Your task to perform on an android device: Open accessibility settings Image 0: 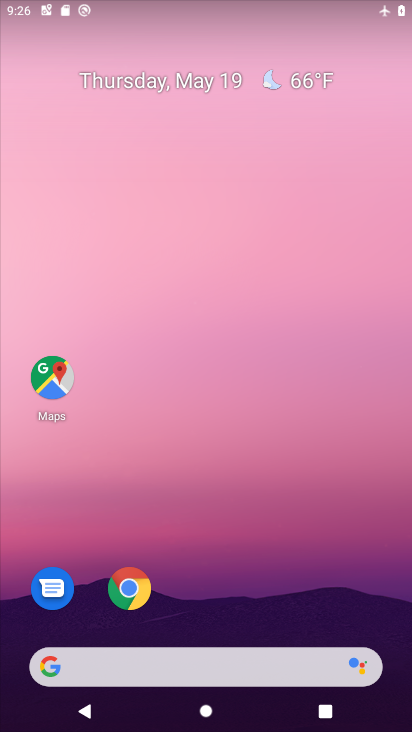
Step 0: drag from (391, 594) to (371, 180)
Your task to perform on an android device: Open accessibility settings Image 1: 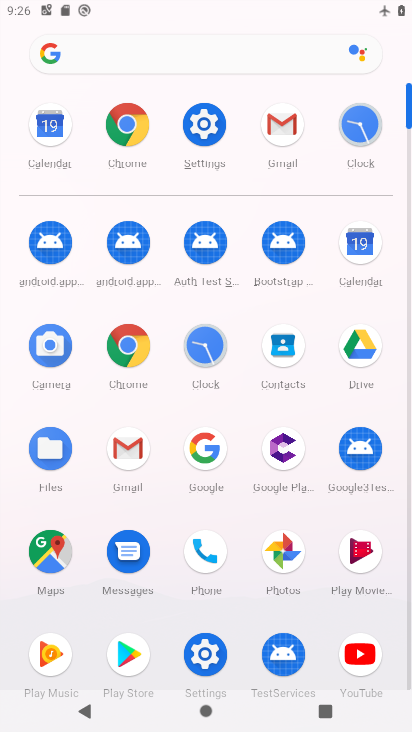
Step 1: click (216, 122)
Your task to perform on an android device: Open accessibility settings Image 2: 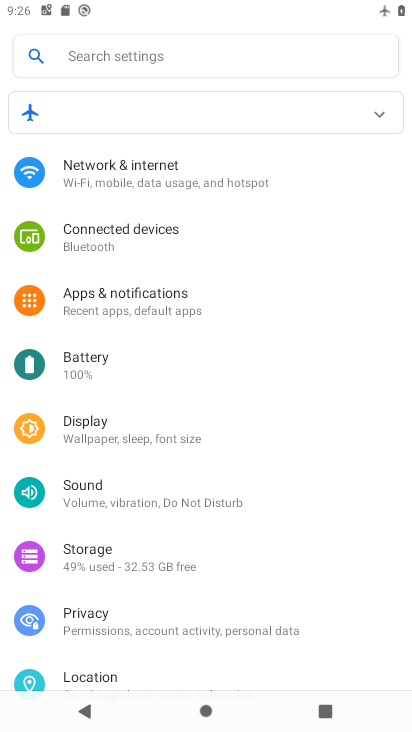
Step 2: drag from (326, 503) to (331, 380)
Your task to perform on an android device: Open accessibility settings Image 3: 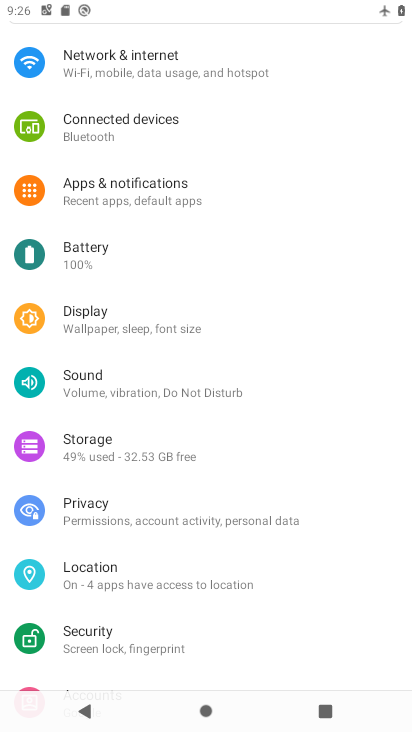
Step 3: drag from (308, 534) to (314, 376)
Your task to perform on an android device: Open accessibility settings Image 4: 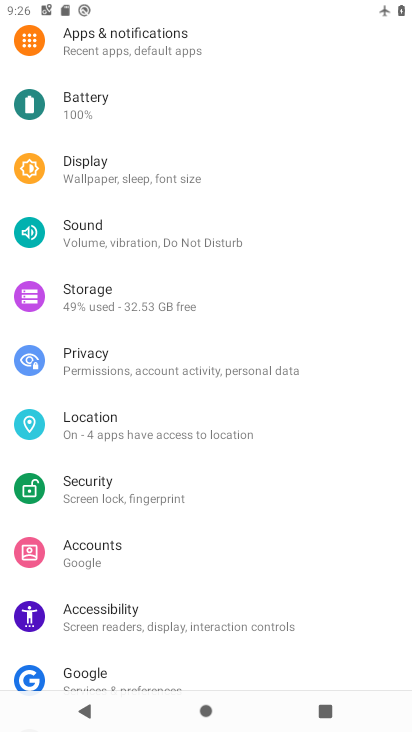
Step 4: drag from (287, 566) to (301, 440)
Your task to perform on an android device: Open accessibility settings Image 5: 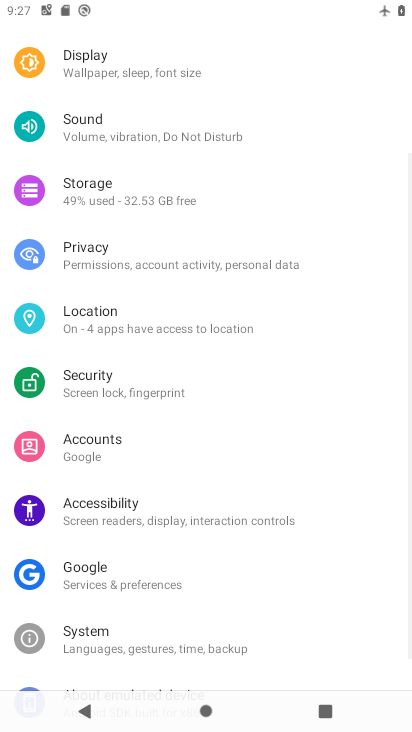
Step 5: drag from (301, 600) to (304, 457)
Your task to perform on an android device: Open accessibility settings Image 6: 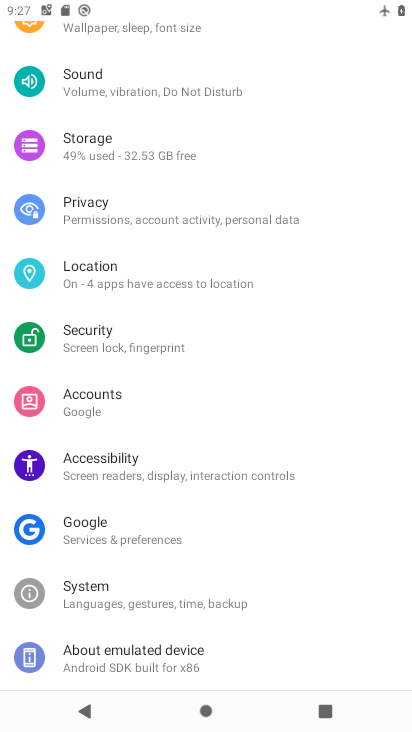
Step 6: drag from (303, 598) to (314, 426)
Your task to perform on an android device: Open accessibility settings Image 7: 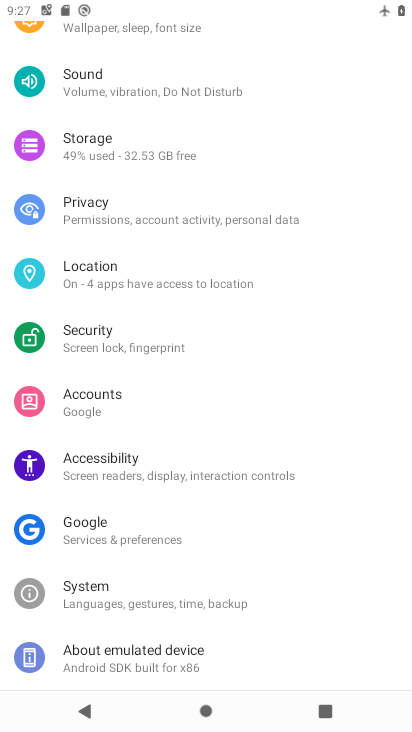
Step 7: drag from (337, 347) to (325, 500)
Your task to perform on an android device: Open accessibility settings Image 8: 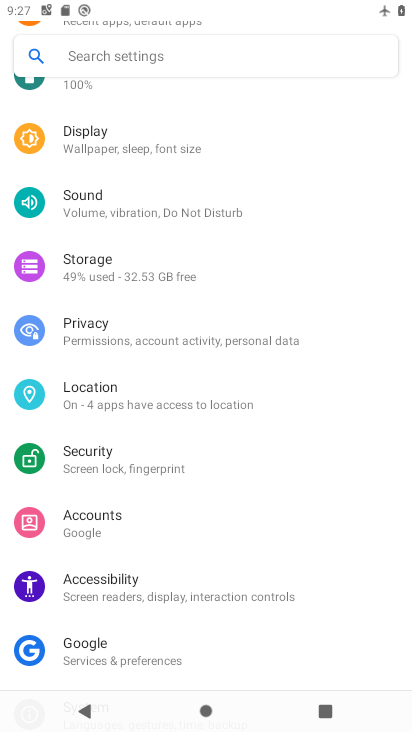
Step 8: drag from (335, 307) to (333, 447)
Your task to perform on an android device: Open accessibility settings Image 9: 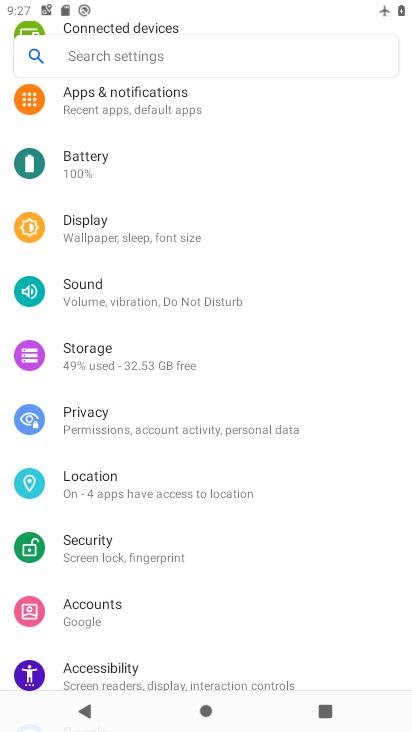
Step 9: drag from (331, 308) to (333, 404)
Your task to perform on an android device: Open accessibility settings Image 10: 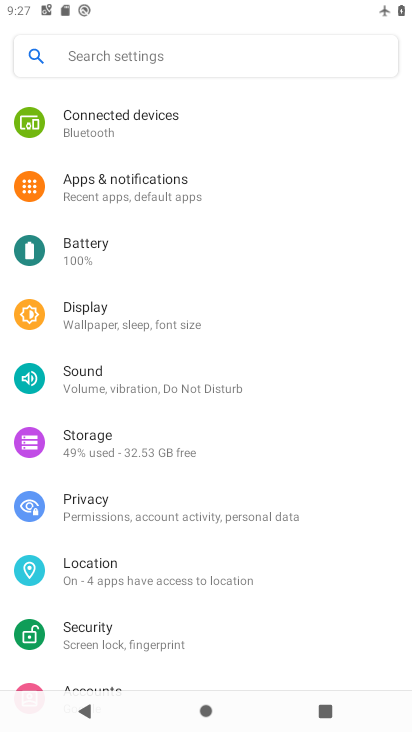
Step 10: drag from (340, 296) to (325, 436)
Your task to perform on an android device: Open accessibility settings Image 11: 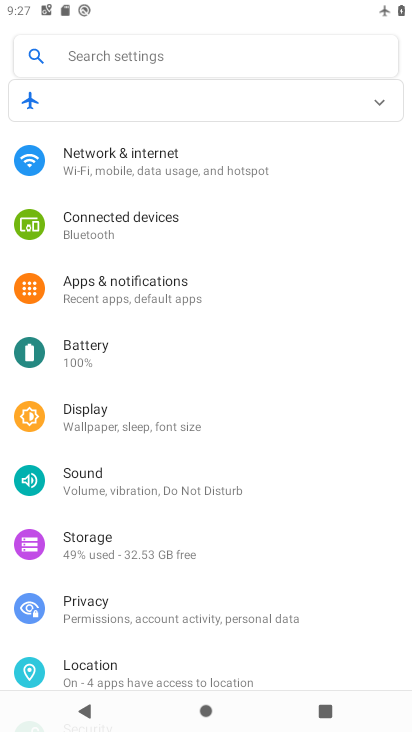
Step 11: drag from (330, 305) to (331, 471)
Your task to perform on an android device: Open accessibility settings Image 12: 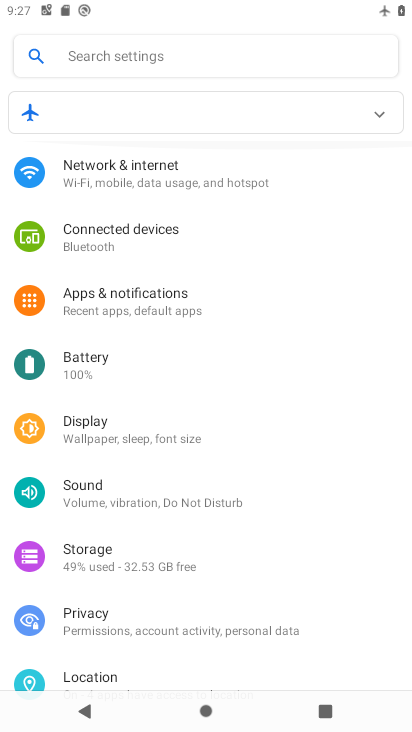
Step 12: drag from (361, 573) to (368, 447)
Your task to perform on an android device: Open accessibility settings Image 13: 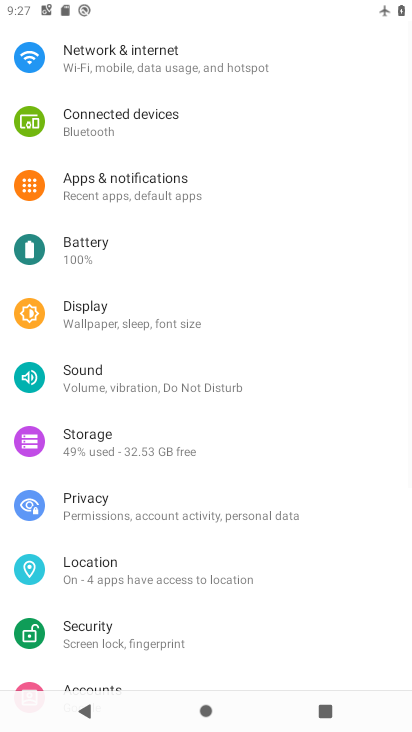
Step 13: drag from (365, 606) to (370, 449)
Your task to perform on an android device: Open accessibility settings Image 14: 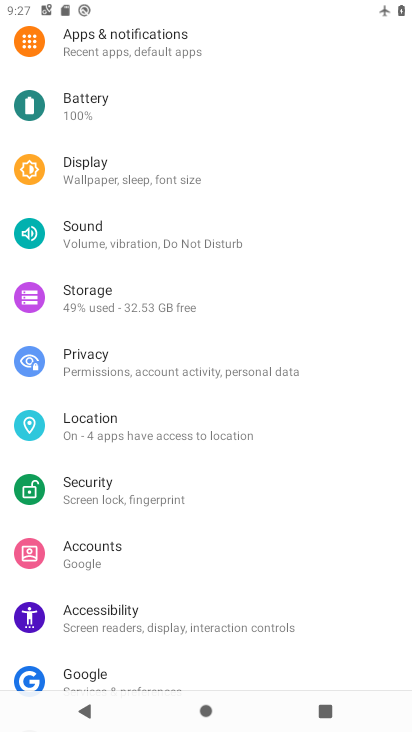
Step 14: drag from (345, 610) to (350, 463)
Your task to perform on an android device: Open accessibility settings Image 15: 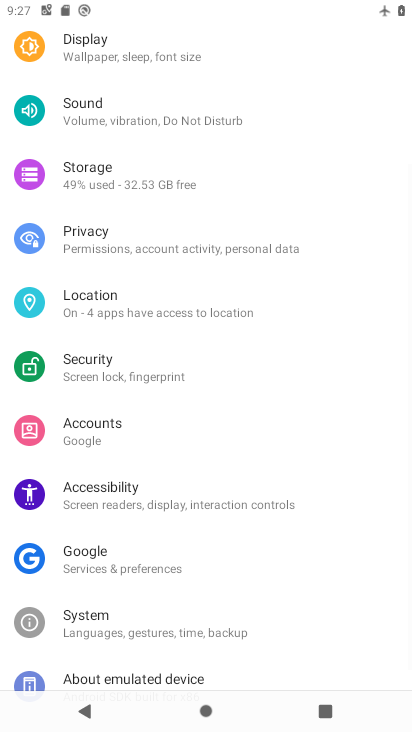
Step 15: drag from (351, 627) to (364, 485)
Your task to perform on an android device: Open accessibility settings Image 16: 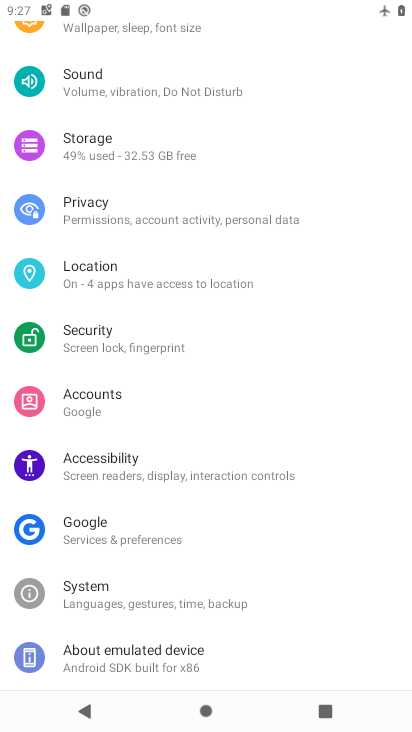
Step 16: click (285, 482)
Your task to perform on an android device: Open accessibility settings Image 17: 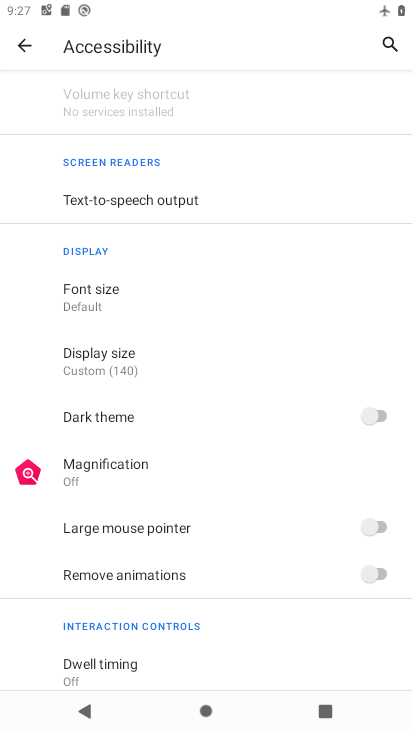
Step 17: task complete